Your task to perform on an android device: toggle data saver in the chrome app Image 0: 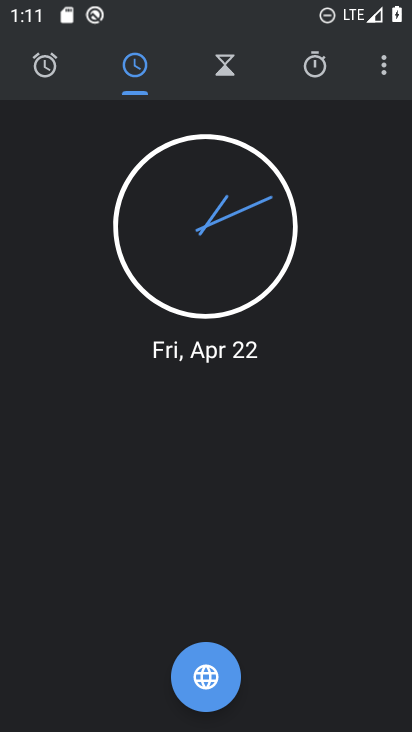
Step 0: press home button
Your task to perform on an android device: toggle data saver in the chrome app Image 1: 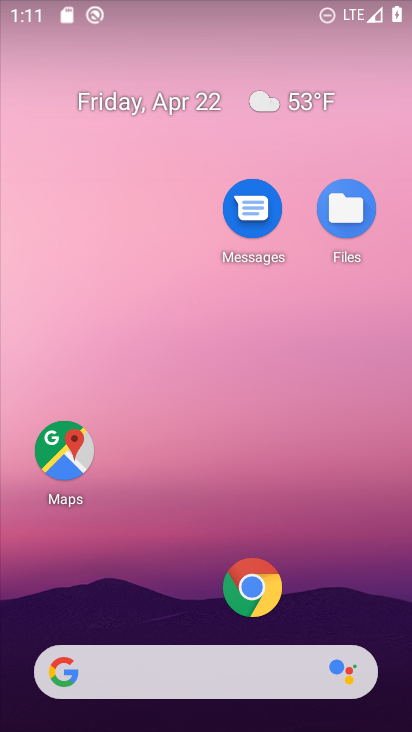
Step 1: click (245, 591)
Your task to perform on an android device: toggle data saver in the chrome app Image 2: 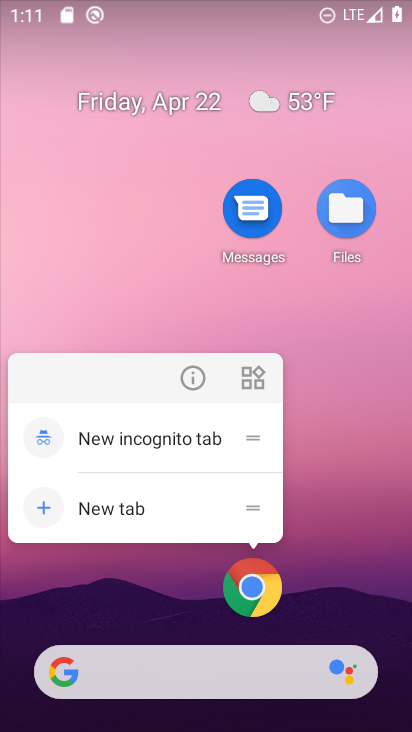
Step 2: click (190, 381)
Your task to perform on an android device: toggle data saver in the chrome app Image 3: 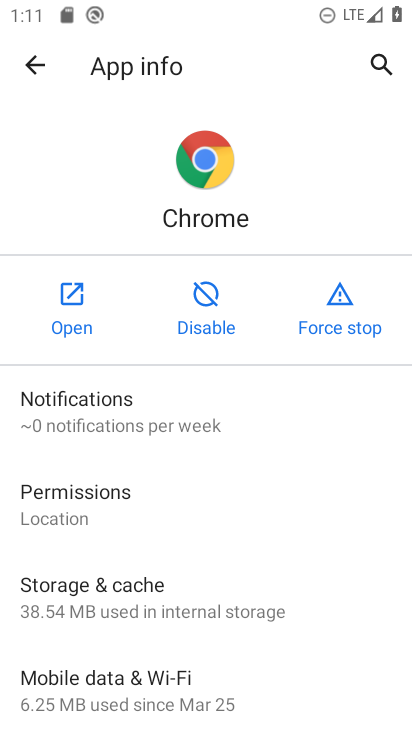
Step 3: click (76, 313)
Your task to perform on an android device: toggle data saver in the chrome app Image 4: 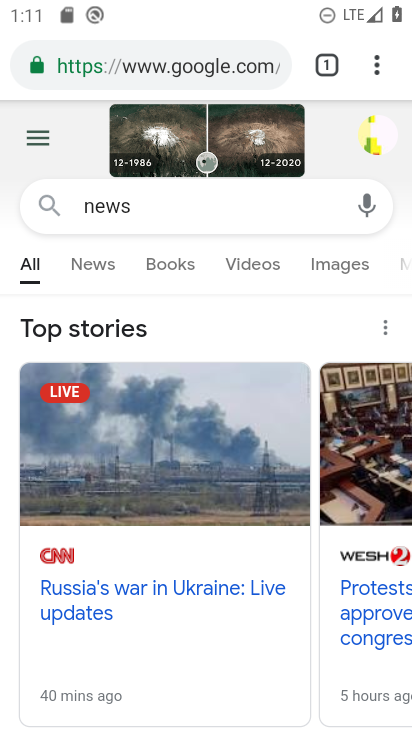
Step 4: click (378, 63)
Your task to perform on an android device: toggle data saver in the chrome app Image 5: 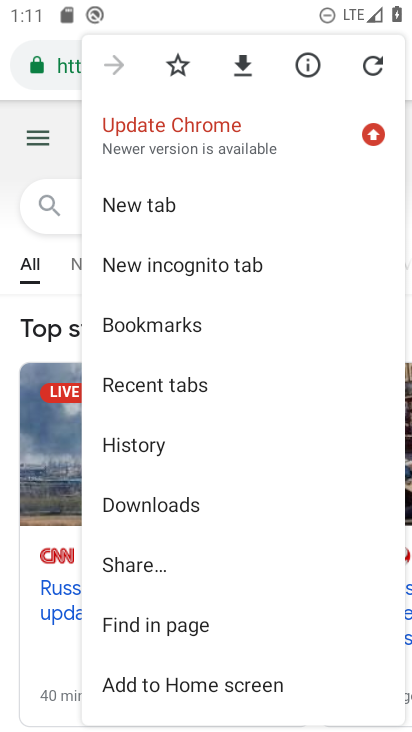
Step 5: drag from (178, 611) to (199, 291)
Your task to perform on an android device: toggle data saver in the chrome app Image 6: 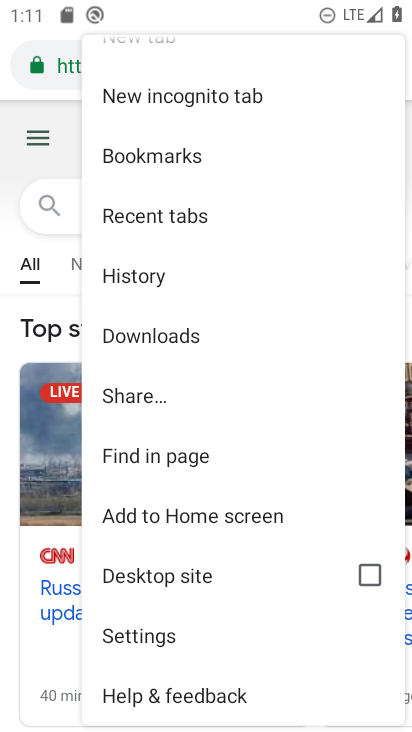
Step 6: click (150, 627)
Your task to perform on an android device: toggle data saver in the chrome app Image 7: 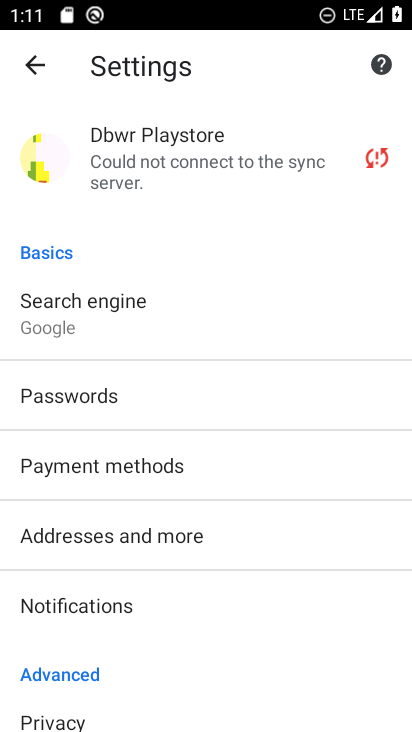
Step 7: drag from (134, 656) to (135, 414)
Your task to perform on an android device: toggle data saver in the chrome app Image 8: 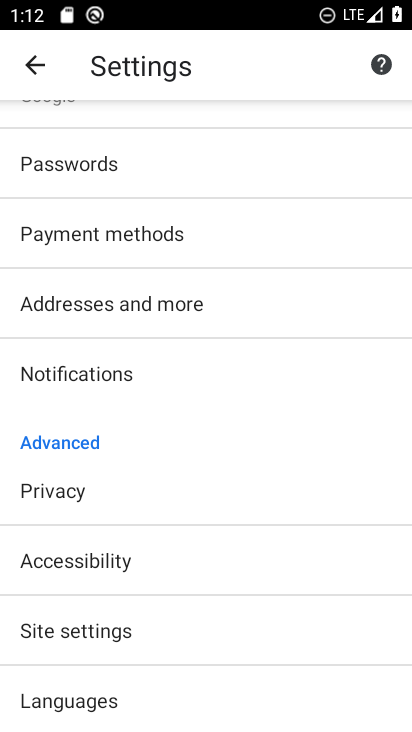
Step 8: drag from (153, 656) to (163, 369)
Your task to perform on an android device: toggle data saver in the chrome app Image 9: 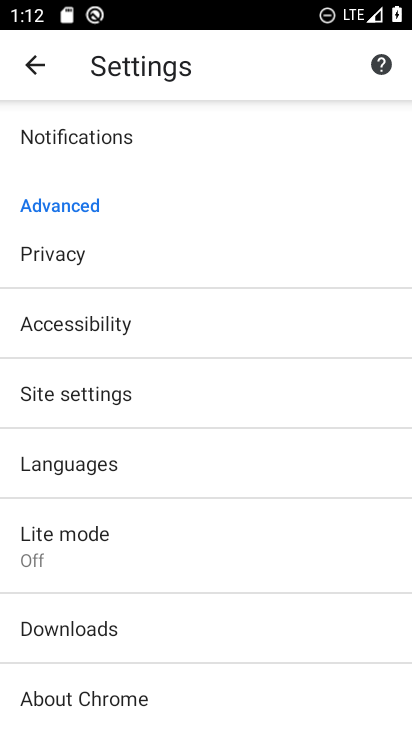
Step 9: click (112, 550)
Your task to perform on an android device: toggle data saver in the chrome app Image 10: 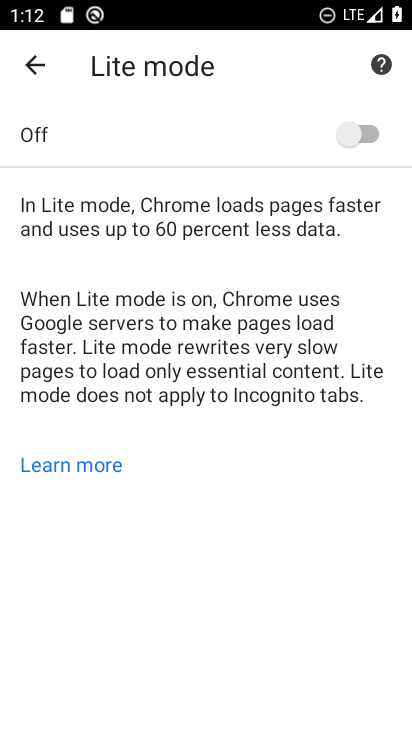
Step 10: click (358, 139)
Your task to perform on an android device: toggle data saver in the chrome app Image 11: 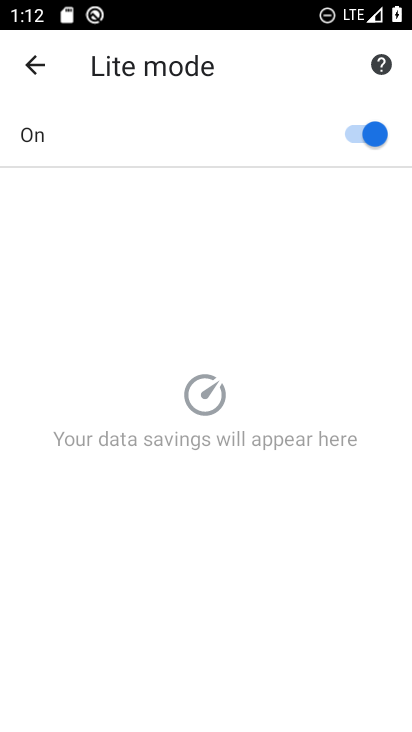
Step 11: task complete